Your task to perform on an android device: Search for sushi restaurants on Maps Image 0: 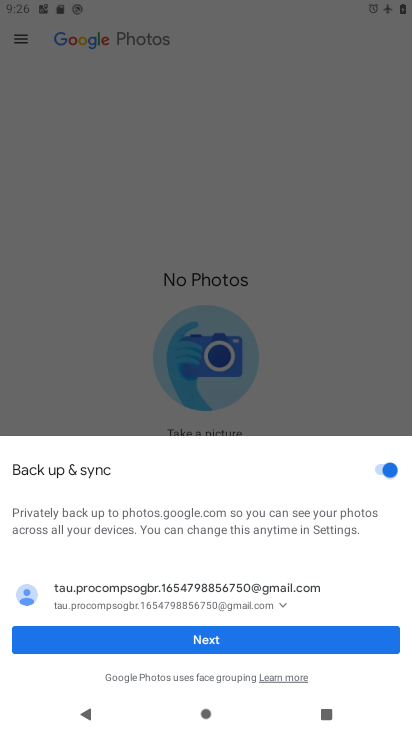
Step 0: press home button
Your task to perform on an android device: Search for sushi restaurants on Maps Image 1: 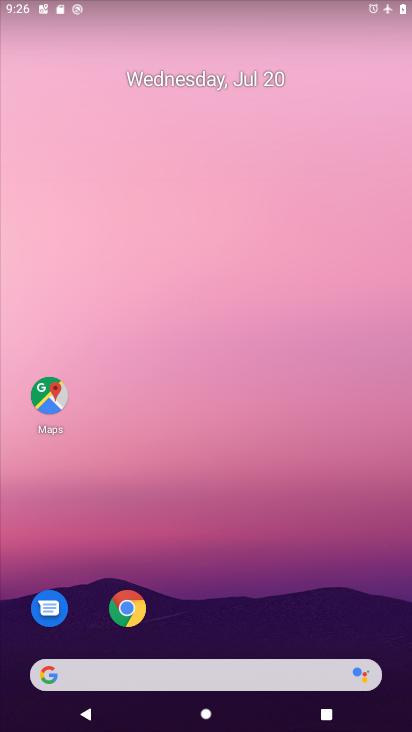
Step 1: click (47, 386)
Your task to perform on an android device: Search for sushi restaurants on Maps Image 2: 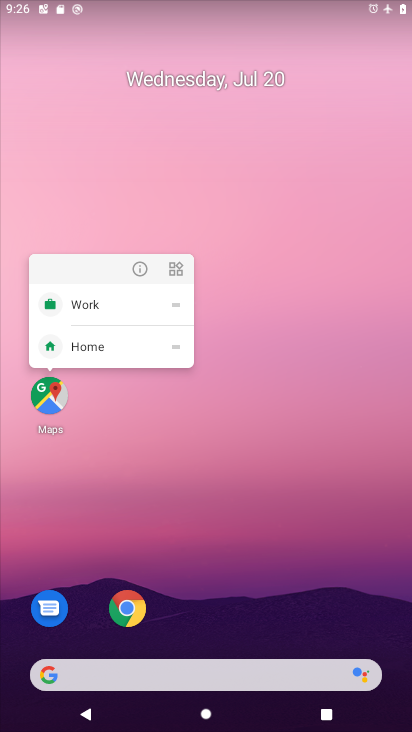
Step 2: click (57, 399)
Your task to perform on an android device: Search for sushi restaurants on Maps Image 3: 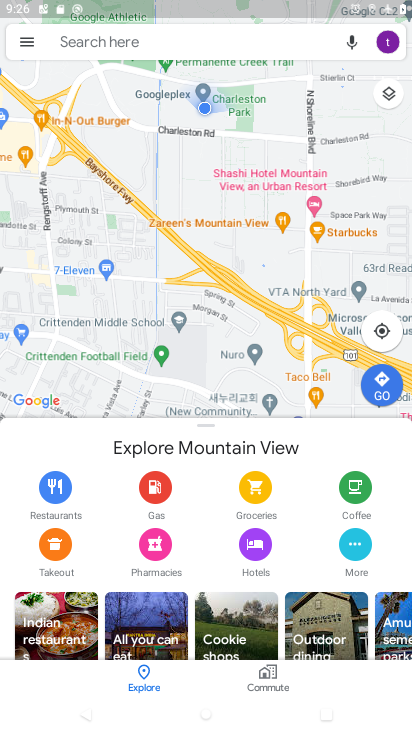
Step 3: click (227, 45)
Your task to perform on an android device: Search for sushi restaurants on Maps Image 4: 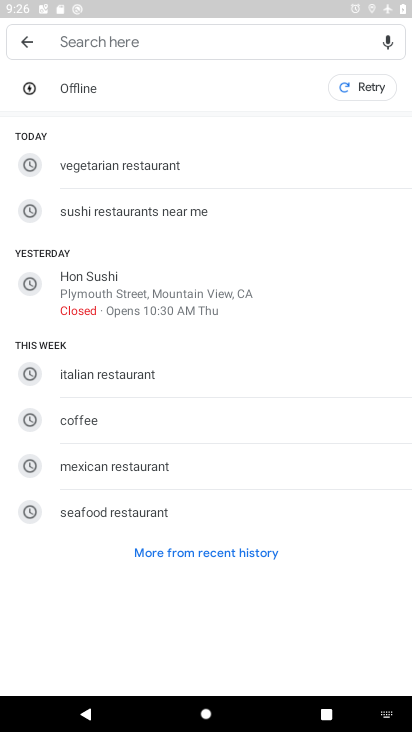
Step 4: click (112, 218)
Your task to perform on an android device: Search for sushi restaurants on Maps Image 5: 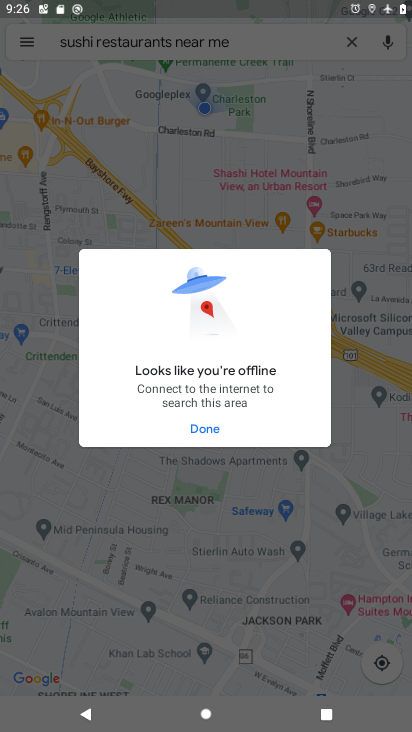
Step 5: task complete